Your task to perform on an android device: Check the news Image 0: 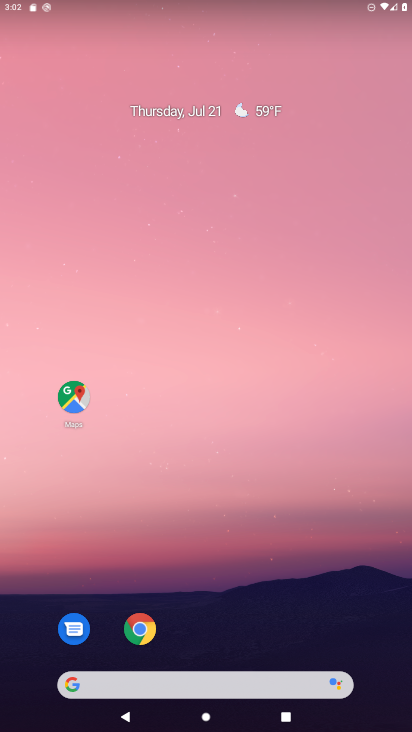
Step 0: drag from (2, 332) to (339, 326)
Your task to perform on an android device: Check the news Image 1: 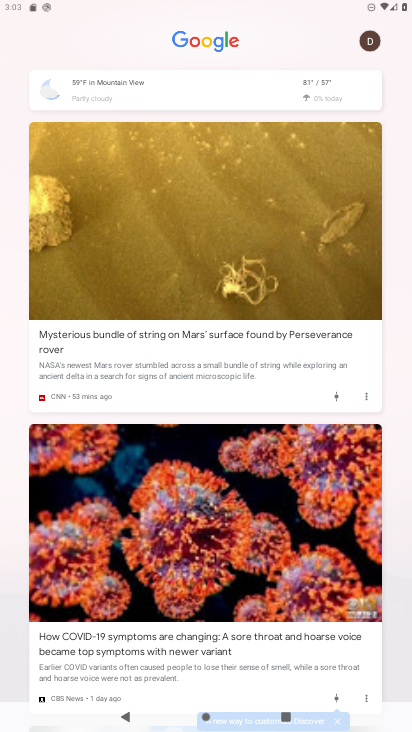
Step 1: task complete